Your task to perform on an android device: Show me the alarms in the clock app Image 0: 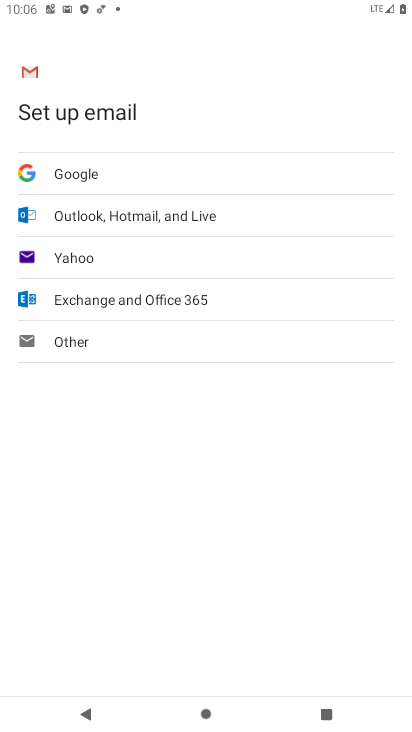
Step 0: press home button
Your task to perform on an android device: Show me the alarms in the clock app Image 1: 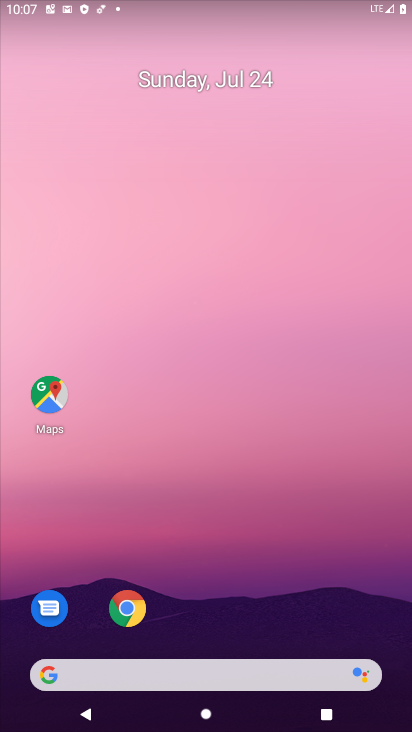
Step 1: drag from (209, 634) to (206, 68)
Your task to perform on an android device: Show me the alarms in the clock app Image 2: 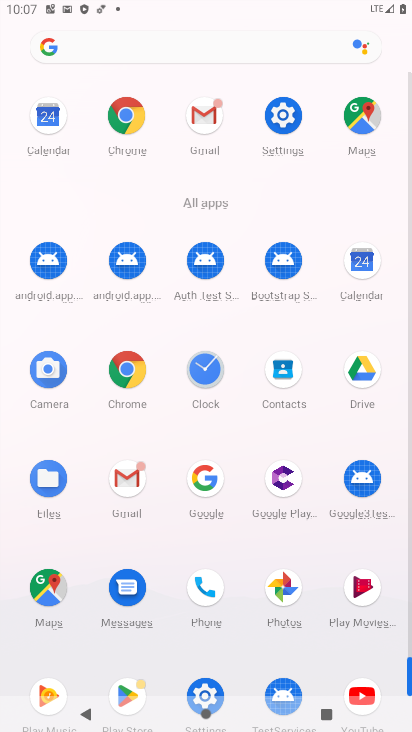
Step 2: click (205, 362)
Your task to perform on an android device: Show me the alarms in the clock app Image 3: 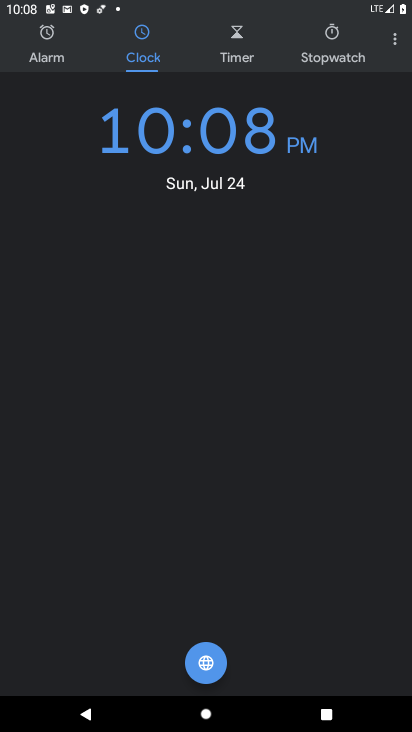
Step 3: click (52, 41)
Your task to perform on an android device: Show me the alarms in the clock app Image 4: 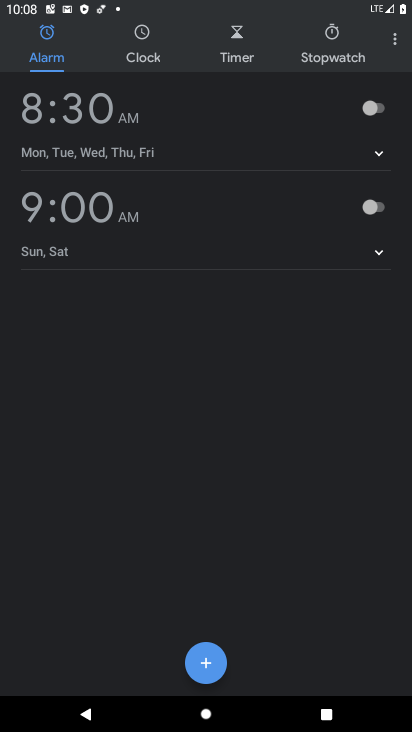
Step 4: click (380, 109)
Your task to perform on an android device: Show me the alarms in the clock app Image 5: 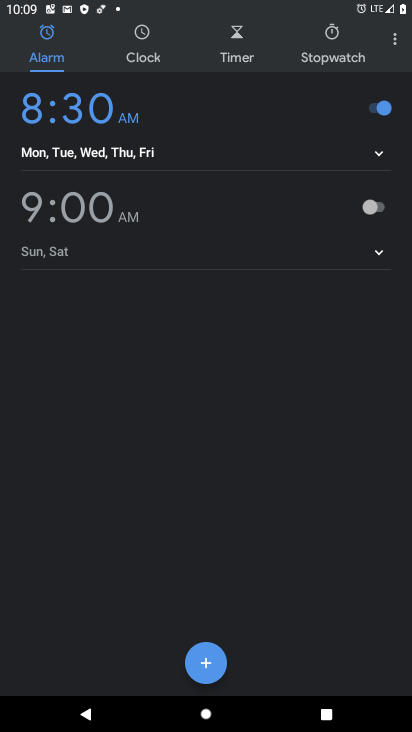
Step 5: click (370, 209)
Your task to perform on an android device: Show me the alarms in the clock app Image 6: 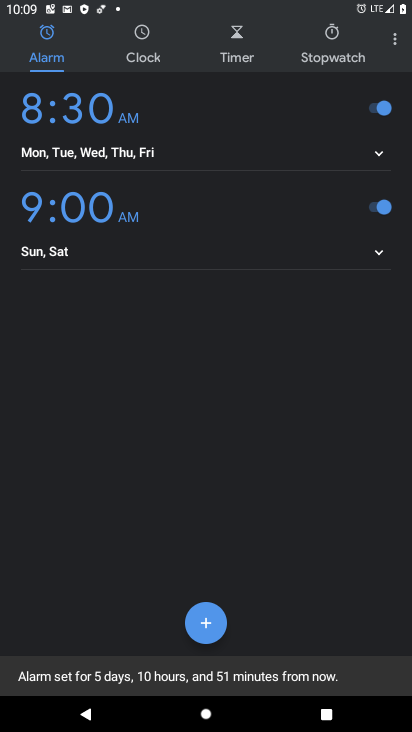
Step 6: task complete